Your task to perform on an android device: Show me recent news Image 0: 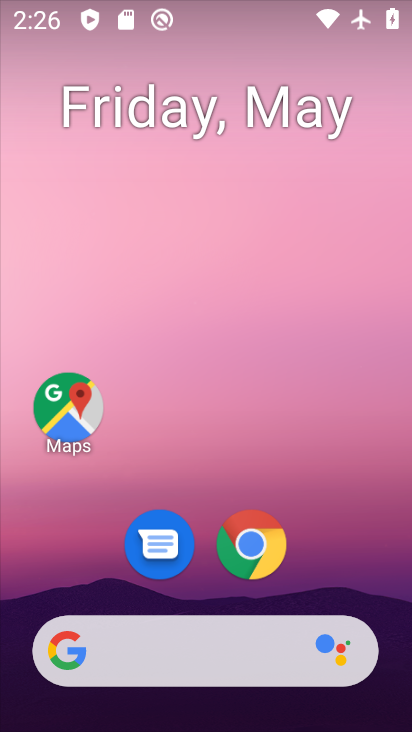
Step 0: click (176, 667)
Your task to perform on an android device: Show me recent news Image 1: 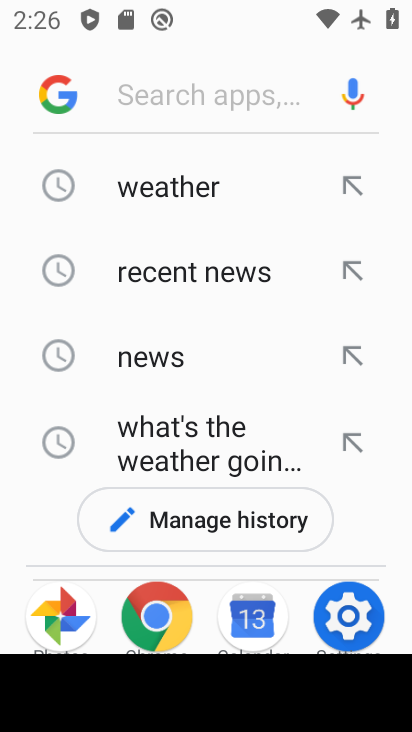
Step 1: click (171, 292)
Your task to perform on an android device: Show me recent news Image 2: 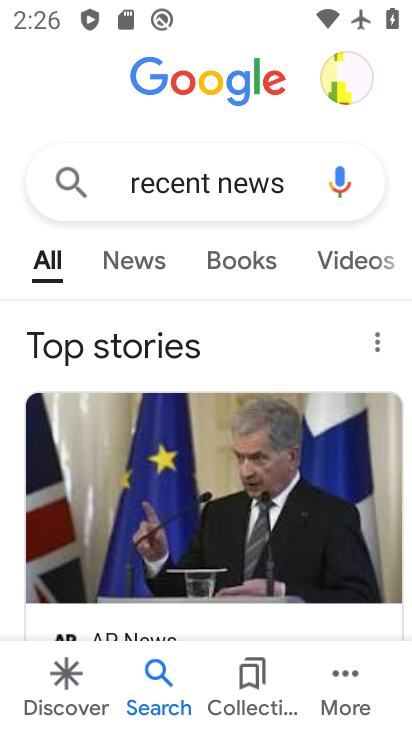
Step 2: task complete